Your task to perform on an android device: open device folders in google photos Image 0: 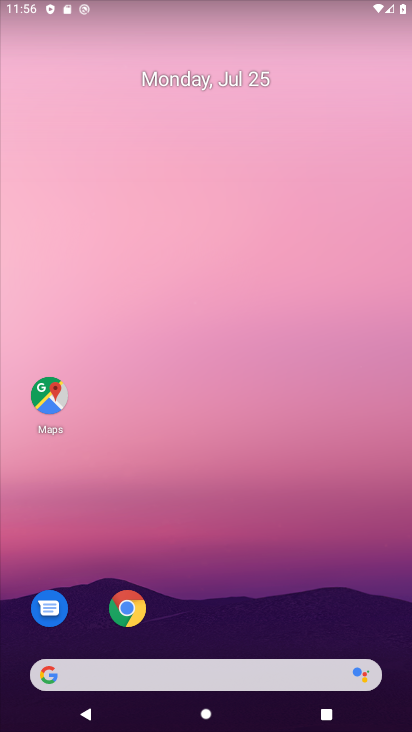
Step 0: drag from (230, 151) to (232, 2)
Your task to perform on an android device: open device folders in google photos Image 1: 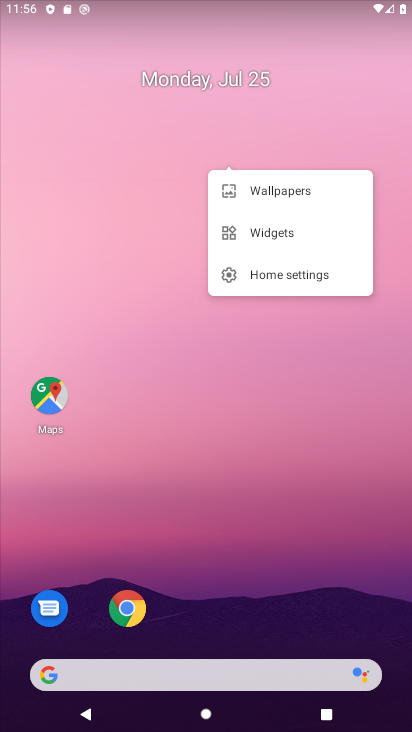
Step 1: click (138, 0)
Your task to perform on an android device: open device folders in google photos Image 2: 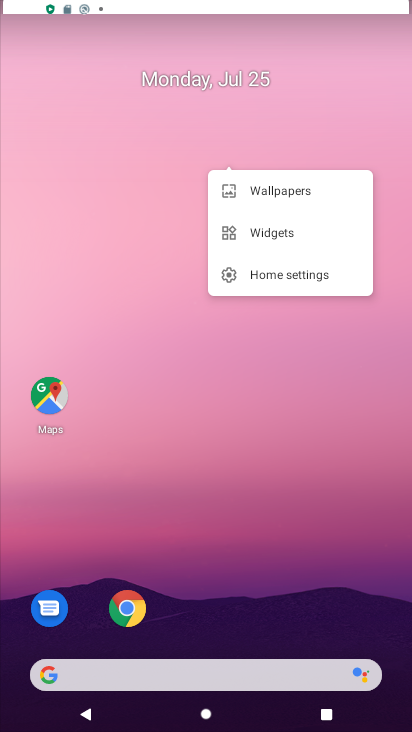
Step 2: click (254, 598)
Your task to perform on an android device: open device folders in google photos Image 3: 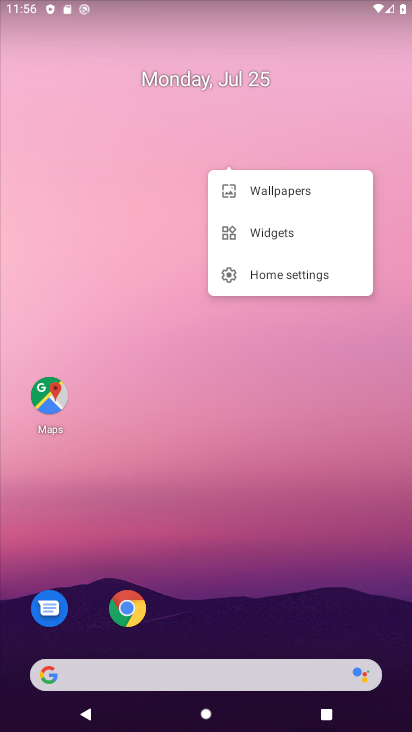
Step 3: drag from (254, 628) to (245, 17)
Your task to perform on an android device: open device folders in google photos Image 4: 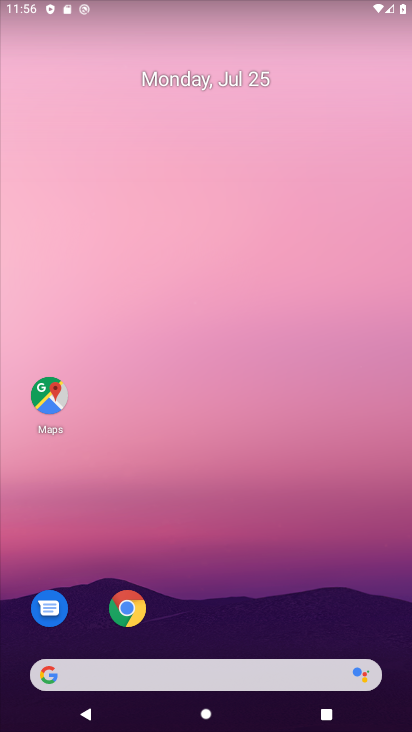
Step 4: drag from (258, 593) to (234, 41)
Your task to perform on an android device: open device folders in google photos Image 5: 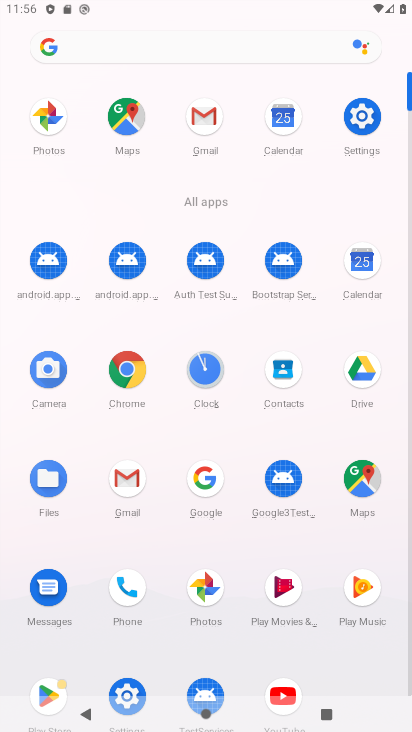
Step 5: click (203, 590)
Your task to perform on an android device: open device folders in google photos Image 6: 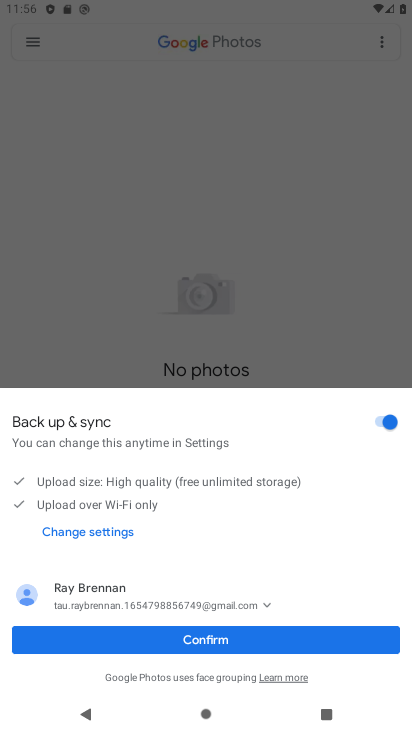
Step 6: click (216, 635)
Your task to perform on an android device: open device folders in google photos Image 7: 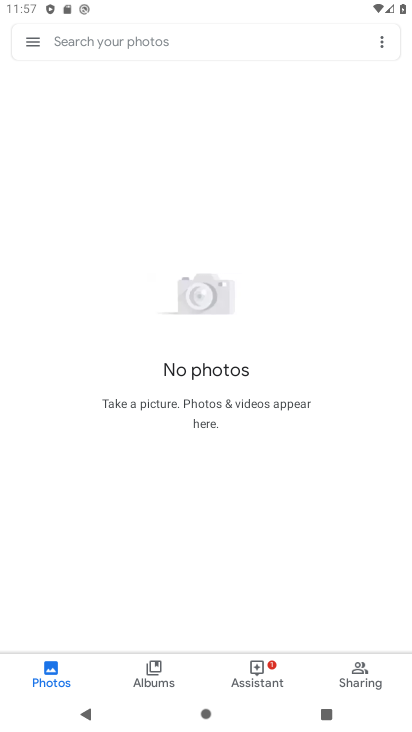
Step 7: click (37, 34)
Your task to perform on an android device: open device folders in google photos Image 8: 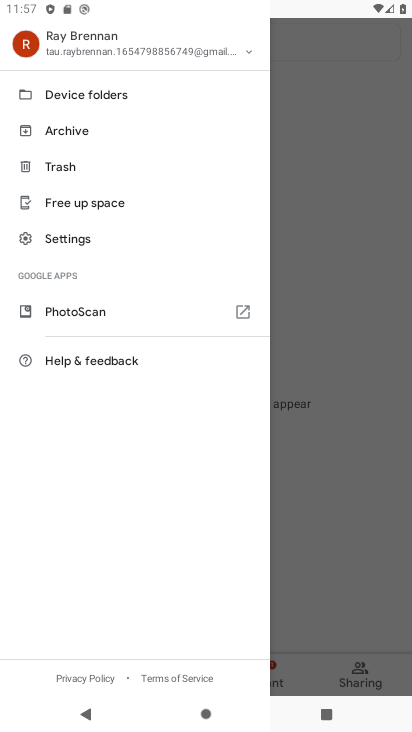
Step 8: click (97, 98)
Your task to perform on an android device: open device folders in google photos Image 9: 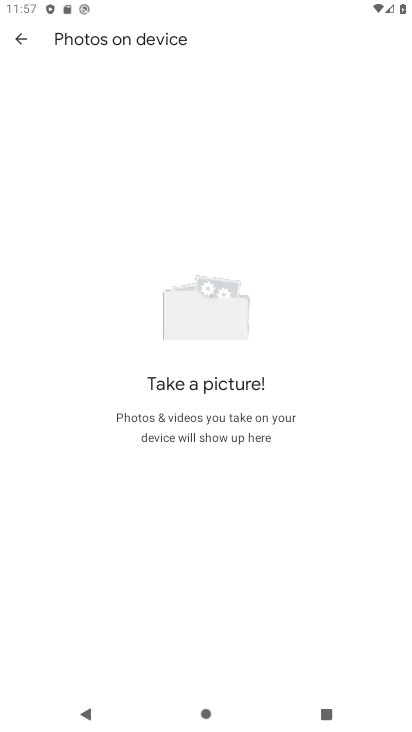
Step 9: task complete